Your task to perform on an android device: Go to display settings Image 0: 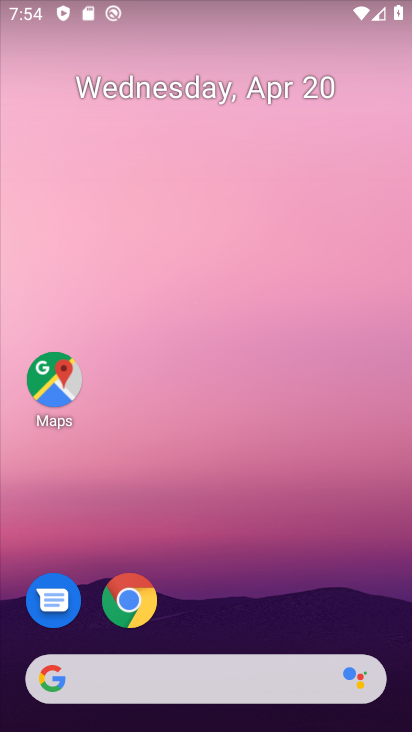
Step 0: drag from (204, 726) to (223, 68)
Your task to perform on an android device: Go to display settings Image 1: 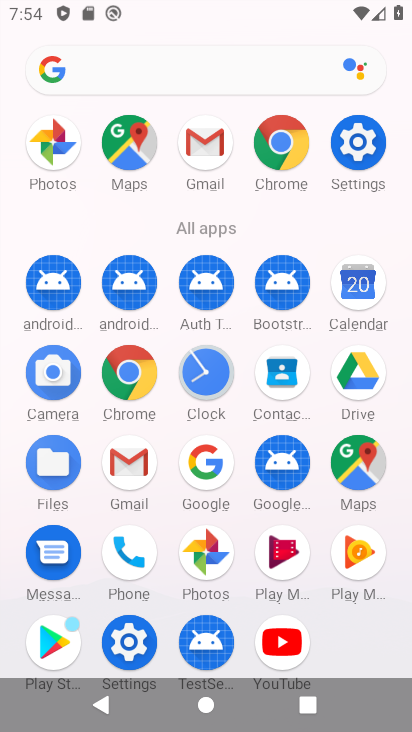
Step 1: click (362, 147)
Your task to perform on an android device: Go to display settings Image 2: 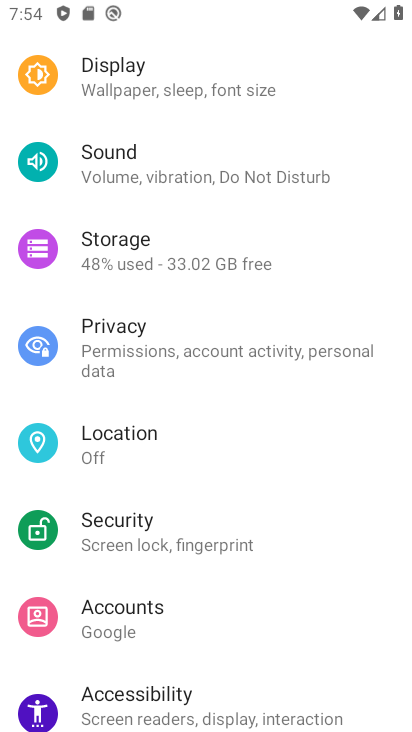
Step 2: click (124, 75)
Your task to perform on an android device: Go to display settings Image 3: 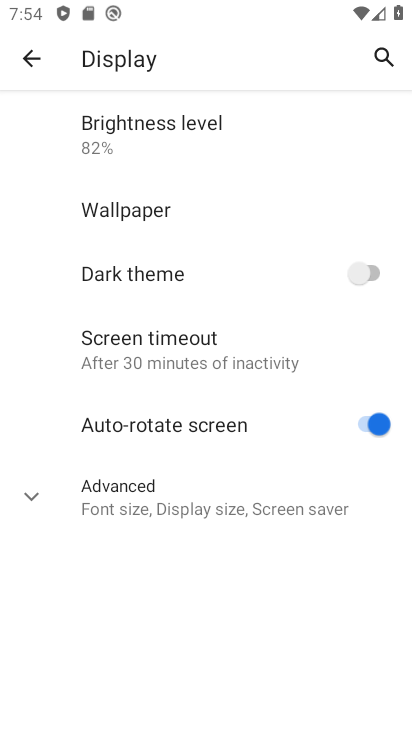
Step 3: task complete